Your task to perform on an android device: Clear the cart on bestbuy. Image 0: 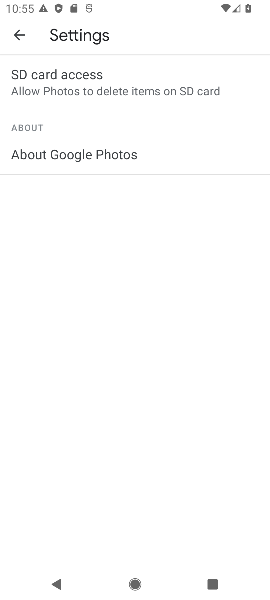
Step 0: press home button
Your task to perform on an android device: Clear the cart on bestbuy. Image 1: 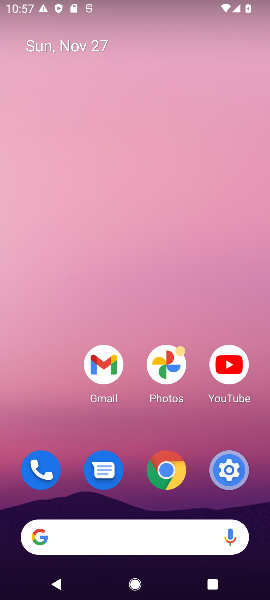
Step 1: click (74, 558)
Your task to perform on an android device: Clear the cart on bestbuy. Image 2: 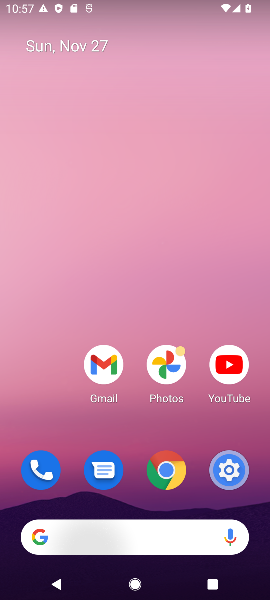
Step 2: click (91, 549)
Your task to perform on an android device: Clear the cart on bestbuy. Image 3: 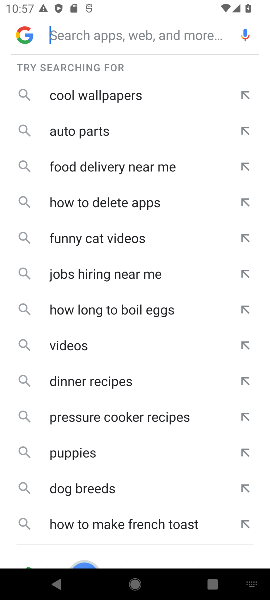
Step 3: type "bestbuy"
Your task to perform on an android device: Clear the cart on bestbuy. Image 4: 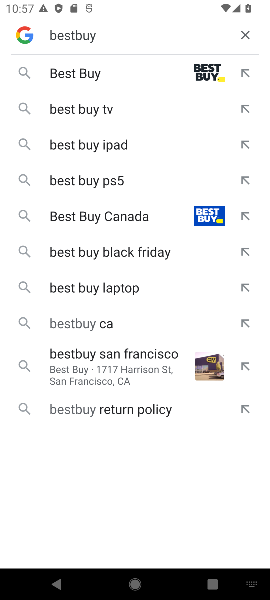
Step 4: click (120, 84)
Your task to perform on an android device: Clear the cart on bestbuy. Image 5: 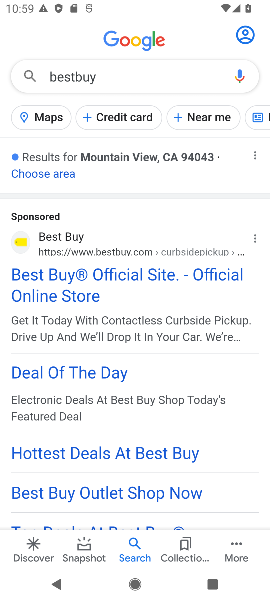
Step 5: click (119, 260)
Your task to perform on an android device: Clear the cart on bestbuy. Image 6: 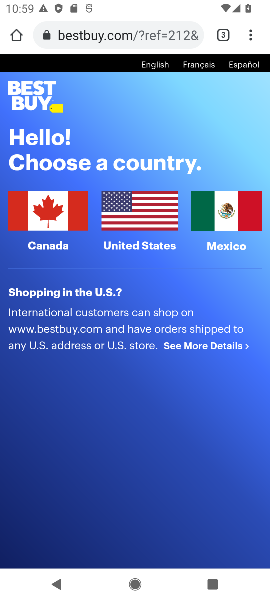
Step 6: click (69, 238)
Your task to perform on an android device: Clear the cart on bestbuy. Image 7: 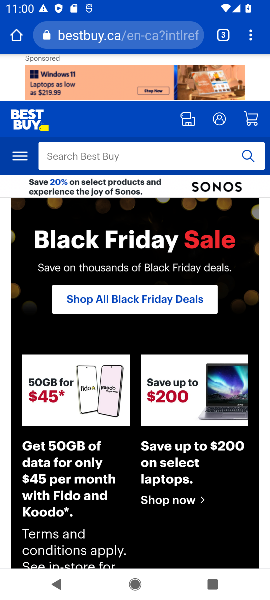
Step 7: task complete